Your task to perform on an android device: When is my next appointment? Image 0: 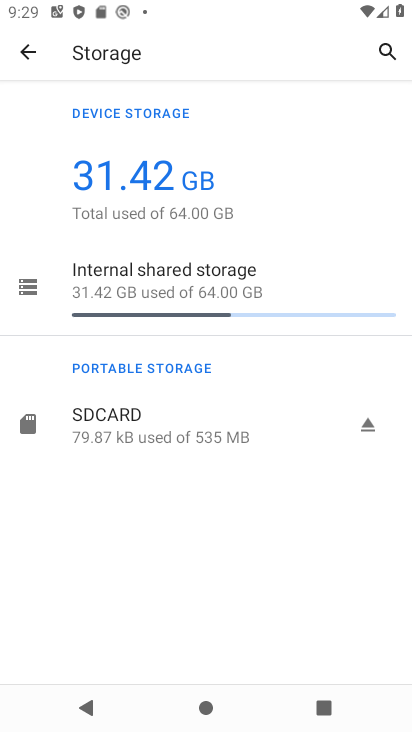
Step 0: press home button
Your task to perform on an android device: When is my next appointment? Image 1: 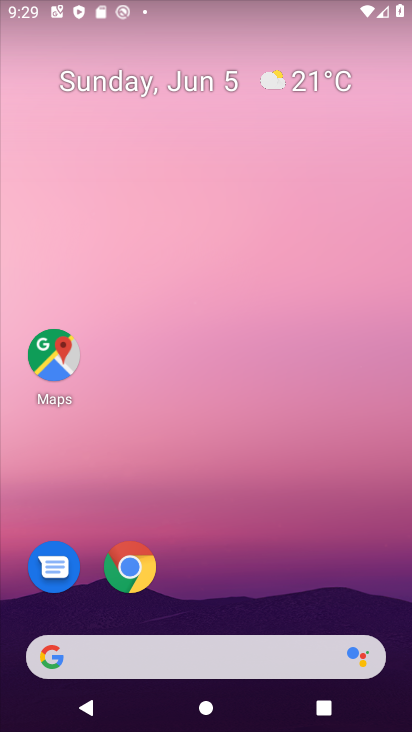
Step 1: drag from (265, 636) to (267, 444)
Your task to perform on an android device: When is my next appointment? Image 2: 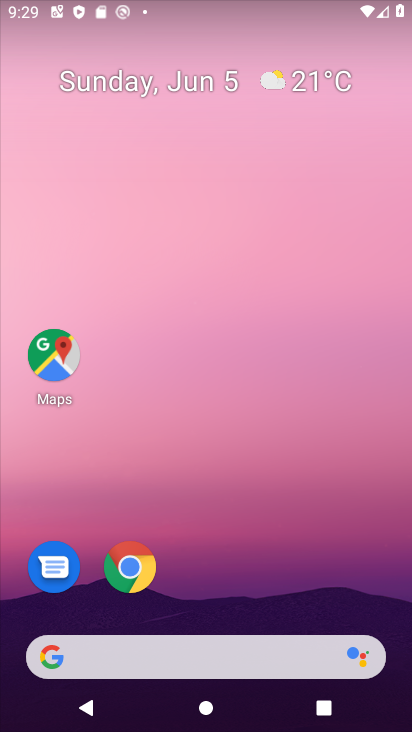
Step 2: click (275, 300)
Your task to perform on an android device: When is my next appointment? Image 3: 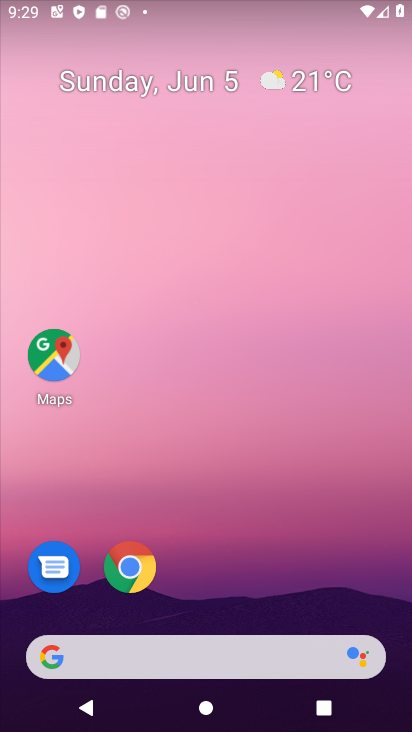
Step 3: drag from (190, 524) to (225, 237)
Your task to perform on an android device: When is my next appointment? Image 4: 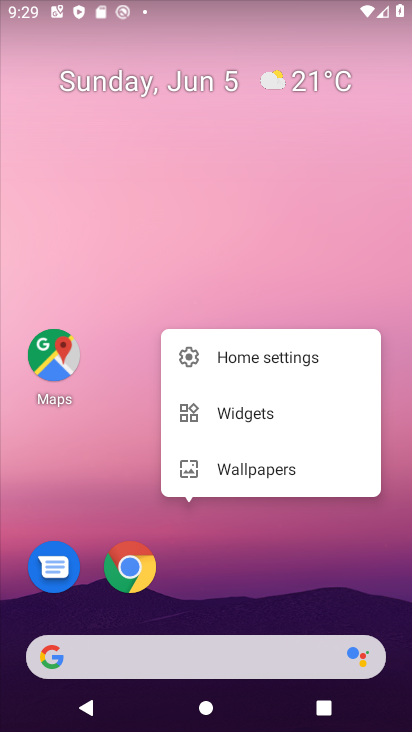
Step 4: click (72, 435)
Your task to perform on an android device: When is my next appointment? Image 5: 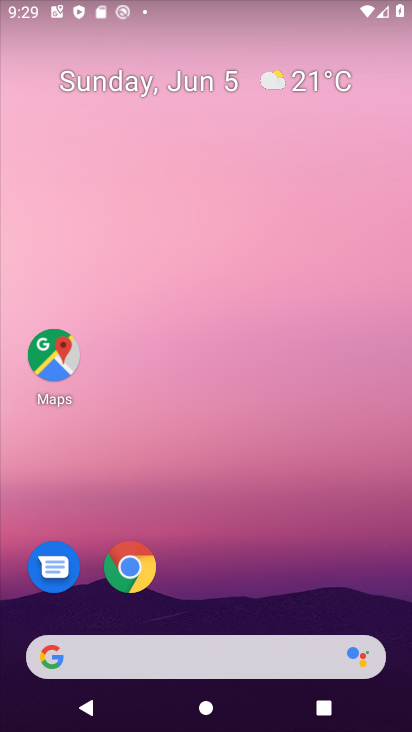
Step 5: drag from (219, 576) to (219, 255)
Your task to perform on an android device: When is my next appointment? Image 6: 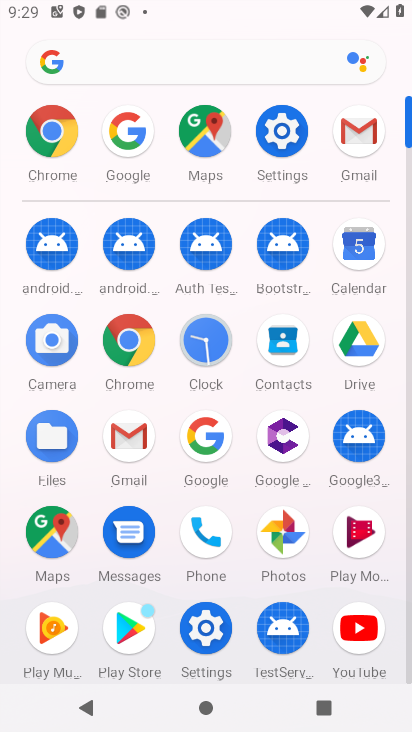
Step 6: click (359, 262)
Your task to perform on an android device: When is my next appointment? Image 7: 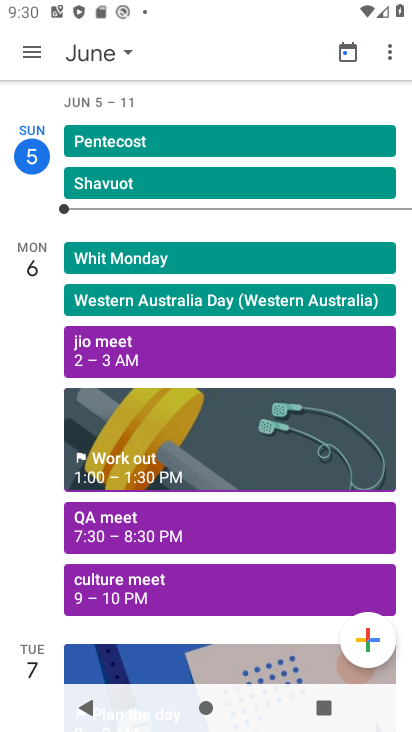
Step 7: click (141, 462)
Your task to perform on an android device: When is my next appointment? Image 8: 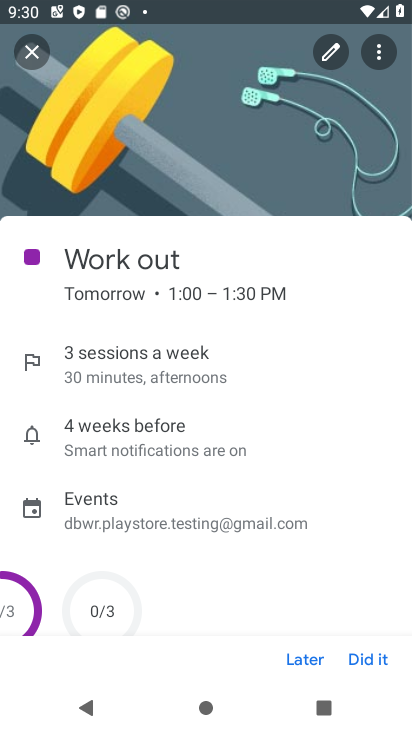
Step 8: task complete